Your task to perform on an android device: check the backup settings in the google photos Image 0: 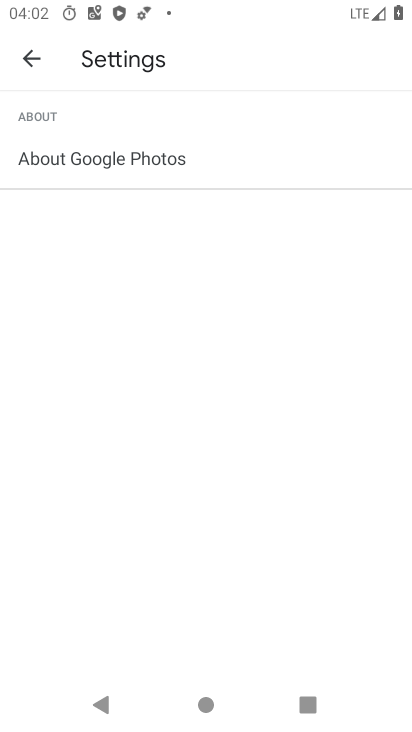
Step 0: press home button
Your task to perform on an android device: check the backup settings in the google photos Image 1: 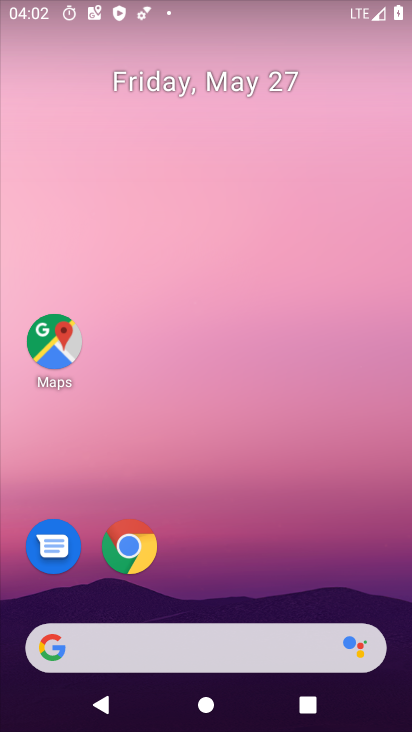
Step 1: drag from (392, 696) to (361, 350)
Your task to perform on an android device: check the backup settings in the google photos Image 2: 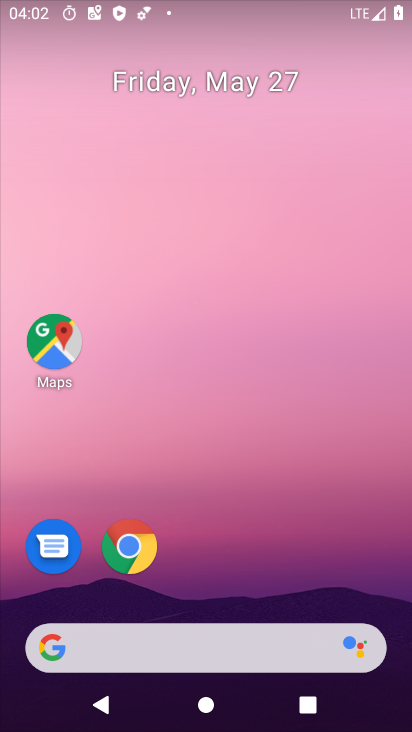
Step 2: drag from (396, 696) to (351, 251)
Your task to perform on an android device: check the backup settings in the google photos Image 3: 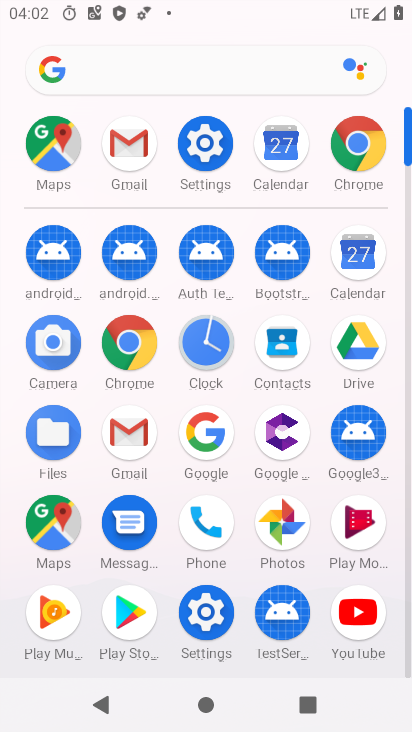
Step 3: click (274, 521)
Your task to perform on an android device: check the backup settings in the google photos Image 4: 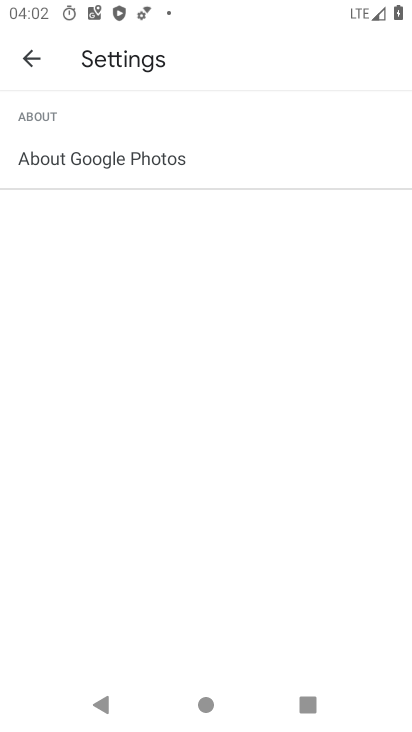
Step 4: click (35, 54)
Your task to perform on an android device: check the backup settings in the google photos Image 5: 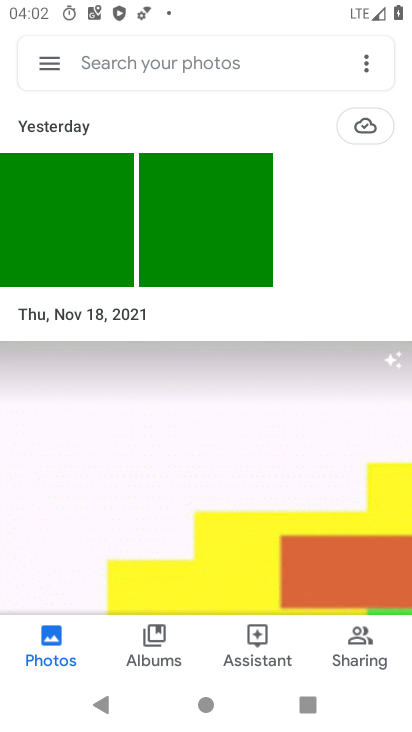
Step 5: press back button
Your task to perform on an android device: check the backup settings in the google photos Image 6: 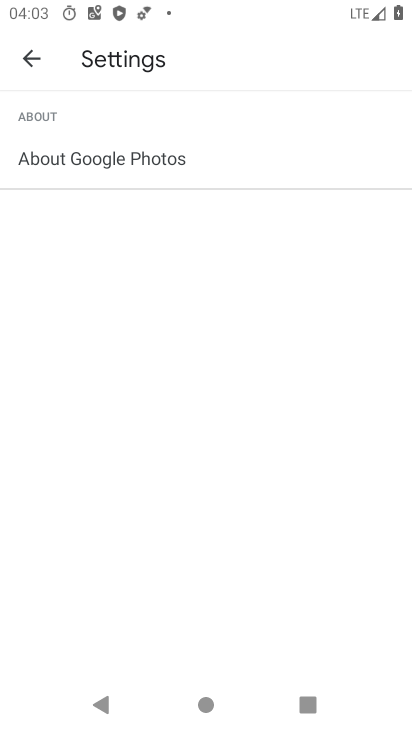
Step 6: press back button
Your task to perform on an android device: check the backup settings in the google photos Image 7: 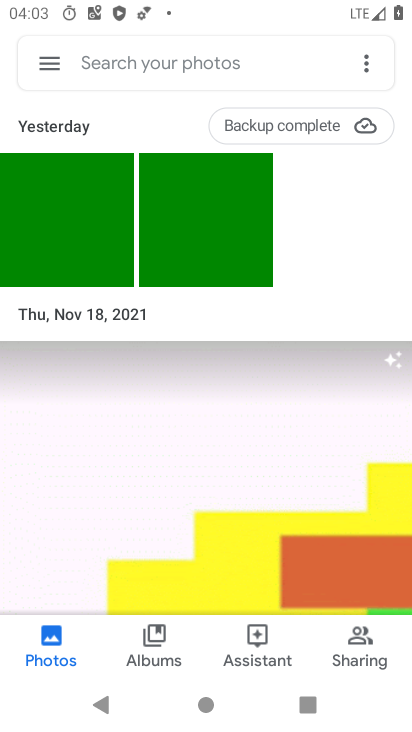
Step 7: press back button
Your task to perform on an android device: check the backup settings in the google photos Image 8: 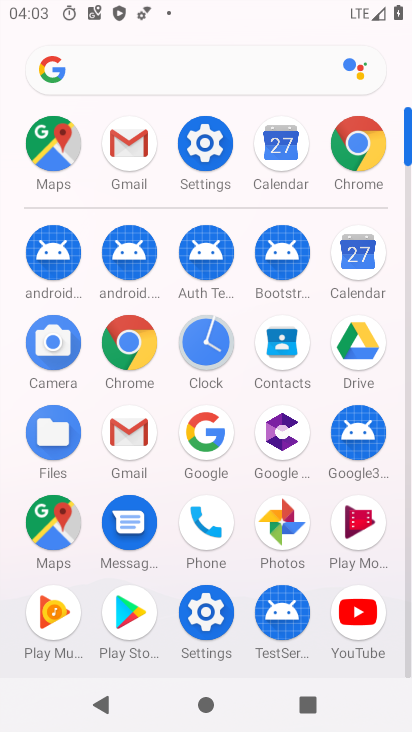
Step 8: click (263, 514)
Your task to perform on an android device: check the backup settings in the google photos Image 9: 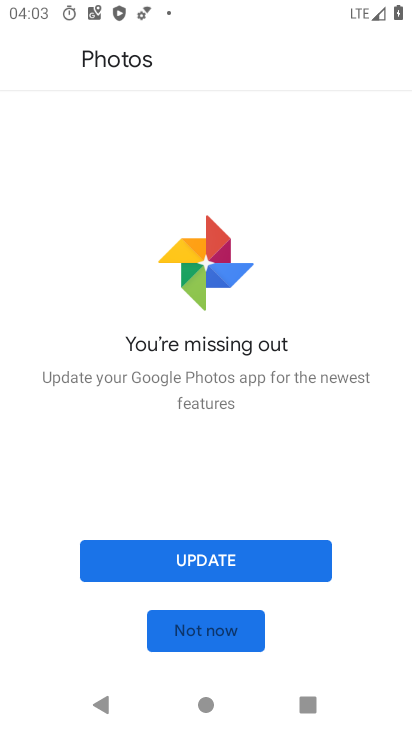
Step 9: click (234, 560)
Your task to perform on an android device: check the backup settings in the google photos Image 10: 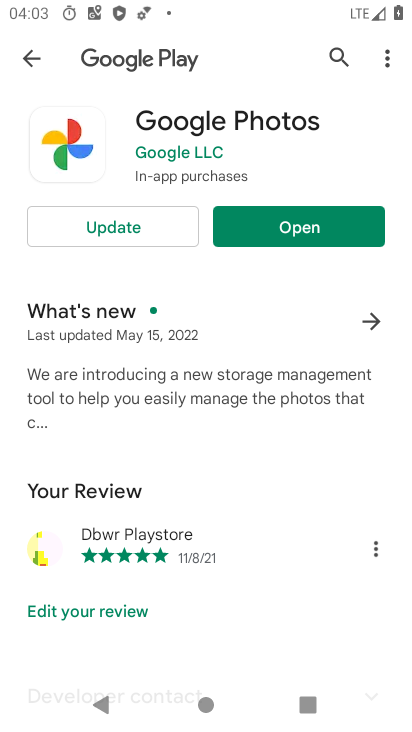
Step 10: click (152, 207)
Your task to perform on an android device: check the backup settings in the google photos Image 11: 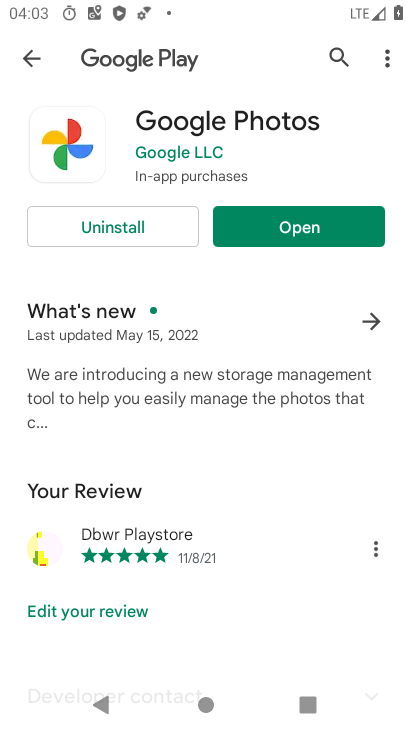
Step 11: click (302, 226)
Your task to perform on an android device: check the backup settings in the google photos Image 12: 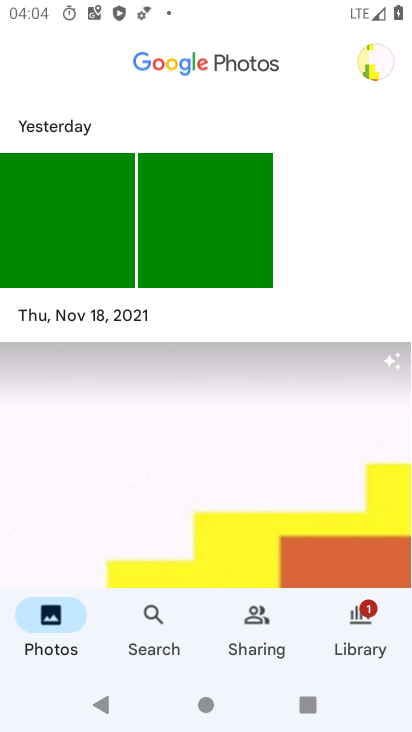
Step 12: task complete